Your task to perform on an android device: Go to Reddit.com Image 0: 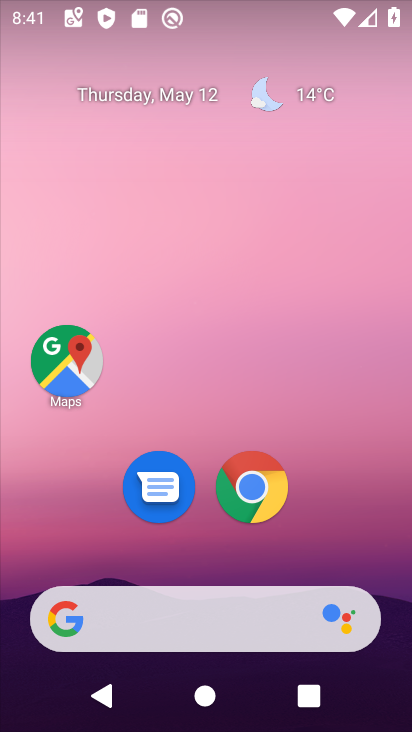
Step 0: press home button
Your task to perform on an android device: Go to Reddit.com Image 1: 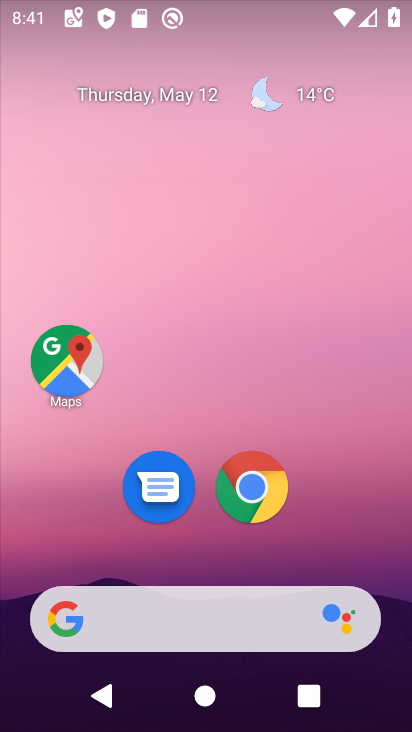
Step 1: click (255, 494)
Your task to perform on an android device: Go to Reddit.com Image 2: 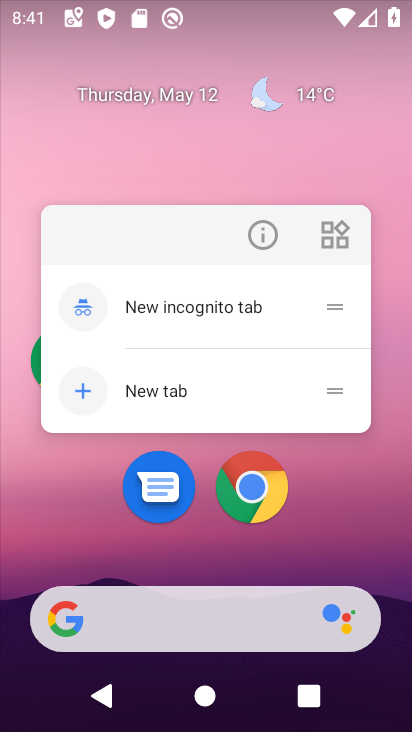
Step 2: click (391, 476)
Your task to perform on an android device: Go to Reddit.com Image 3: 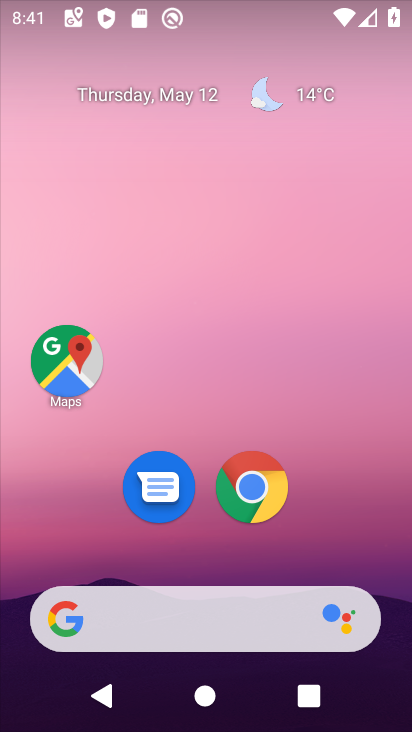
Step 3: click (243, 483)
Your task to perform on an android device: Go to Reddit.com Image 4: 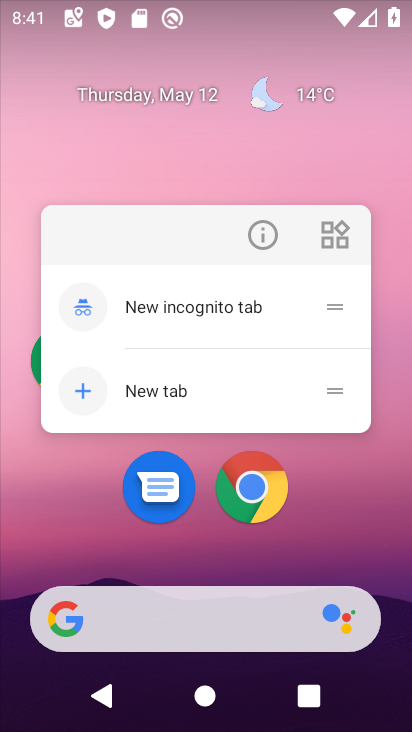
Step 4: click (243, 483)
Your task to perform on an android device: Go to Reddit.com Image 5: 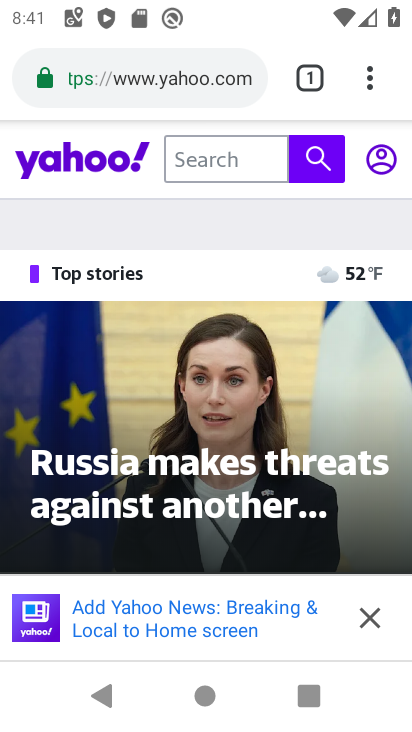
Step 5: click (182, 78)
Your task to perform on an android device: Go to Reddit.com Image 6: 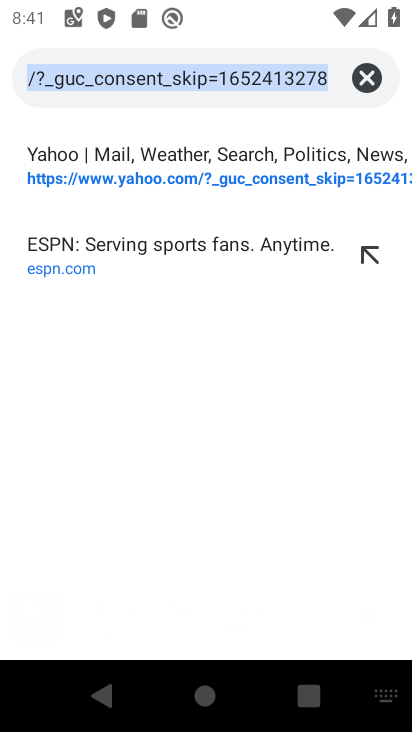
Step 6: click (374, 74)
Your task to perform on an android device: Go to Reddit.com Image 7: 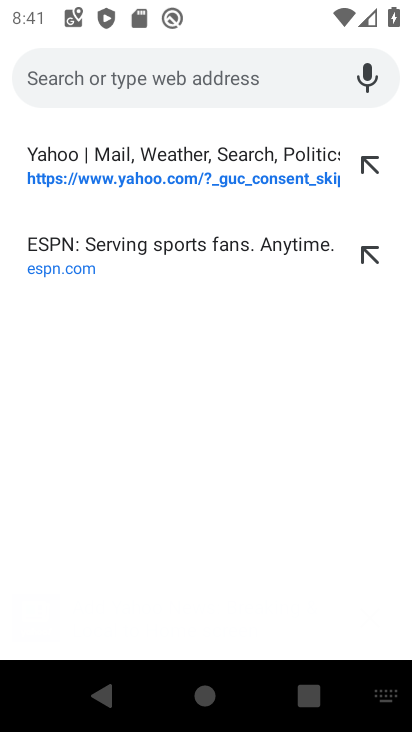
Step 7: type "Reddit.com"
Your task to perform on an android device: Go to Reddit.com Image 8: 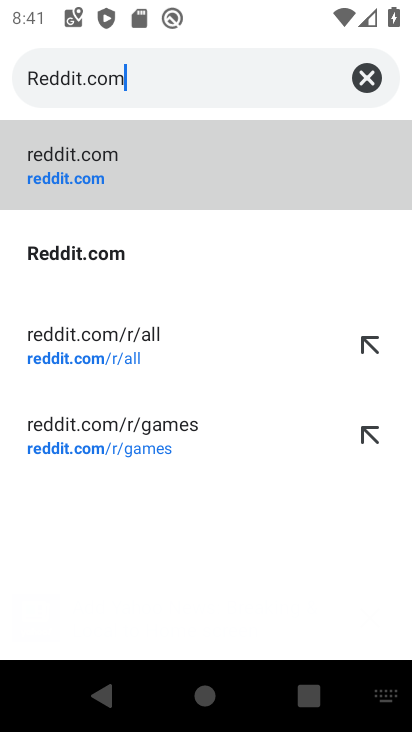
Step 8: type ""
Your task to perform on an android device: Go to Reddit.com Image 9: 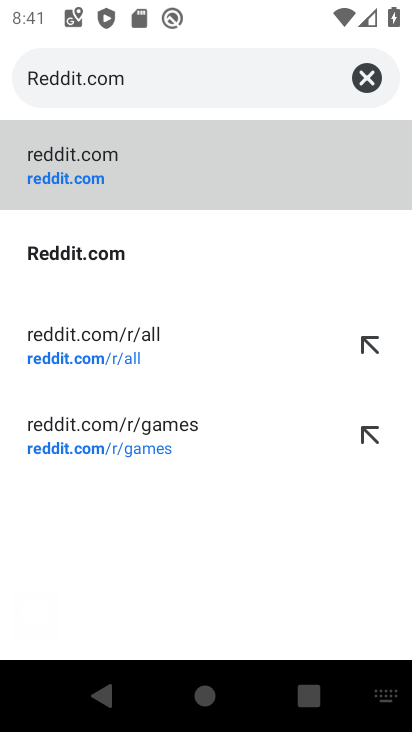
Step 9: click (83, 249)
Your task to perform on an android device: Go to Reddit.com Image 10: 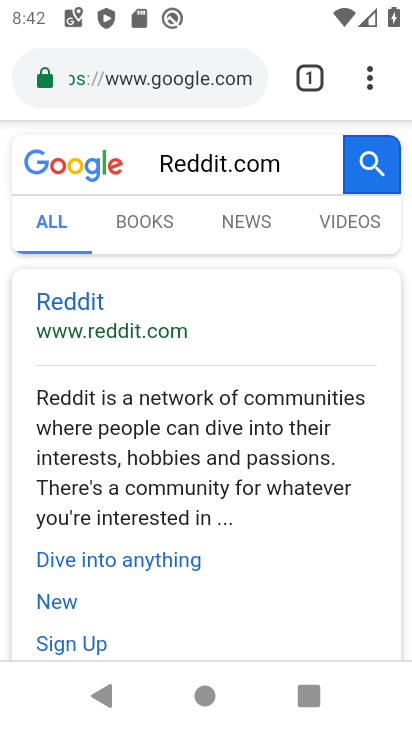
Step 10: click (75, 290)
Your task to perform on an android device: Go to Reddit.com Image 11: 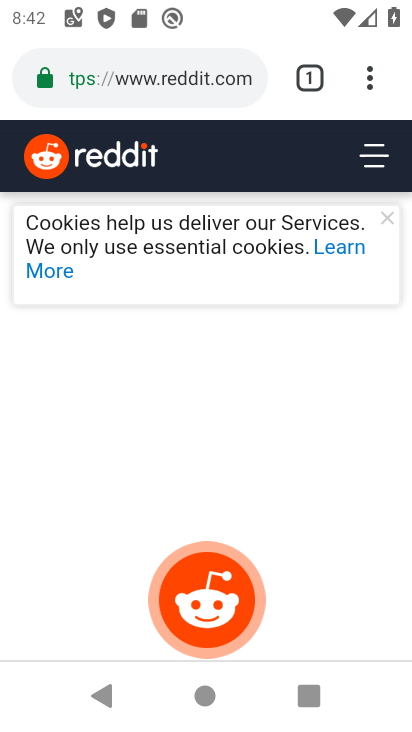
Step 11: task complete